Your task to perform on an android device: turn on notifications settings in the gmail app Image 0: 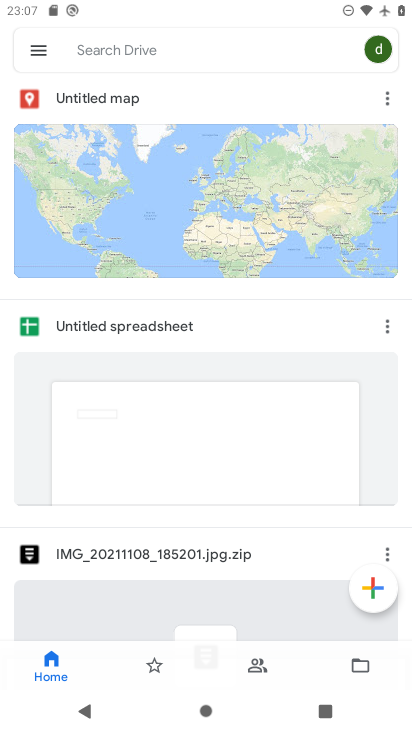
Step 0: press home button
Your task to perform on an android device: turn on notifications settings in the gmail app Image 1: 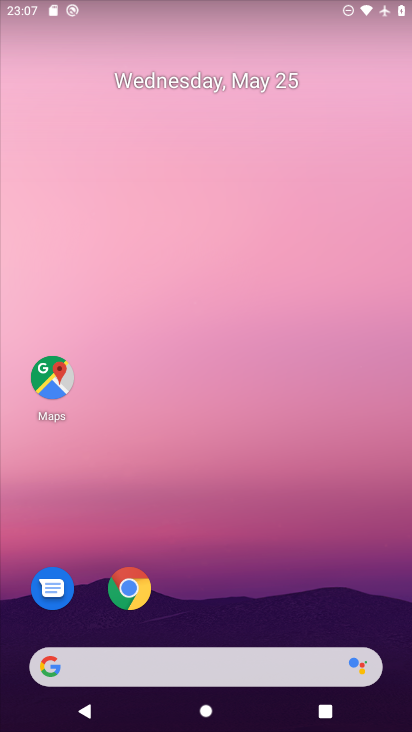
Step 1: drag from (294, 574) to (224, 173)
Your task to perform on an android device: turn on notifications settings in the gmail app Image 2: 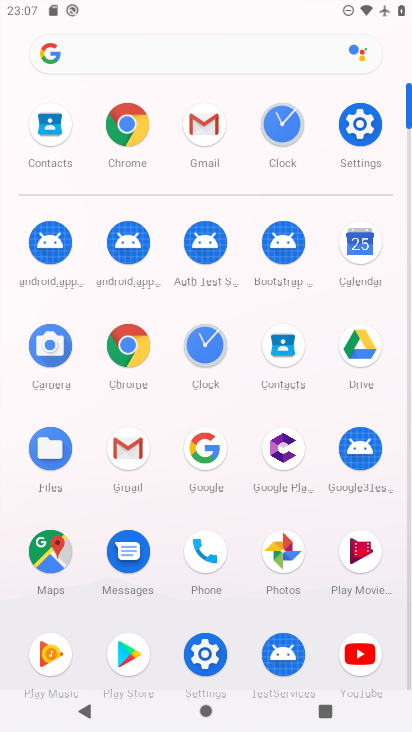
Step 2: click (124, 445)
Your task to perform on an android device: turn on notifications settings in the gmail app Image 3: 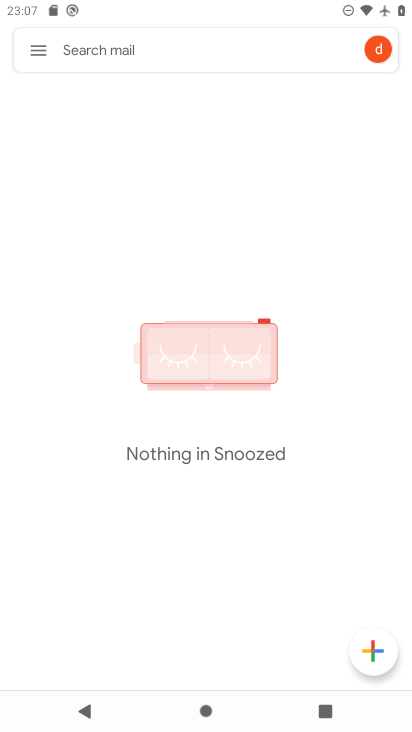
Step 3: click (33, 52)
Your task to perform on an android device: turn on notifications settings in the gmail app Image 4: 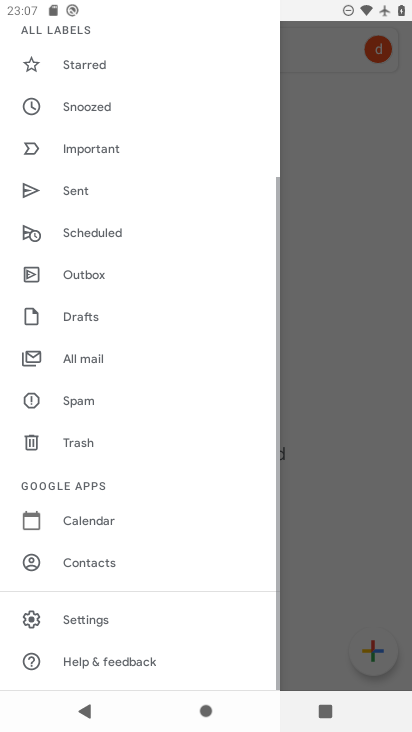
Step 4: click (121, 604)
Your task to perform on an android device: turn on notifications settings in the gmail app Image 5: 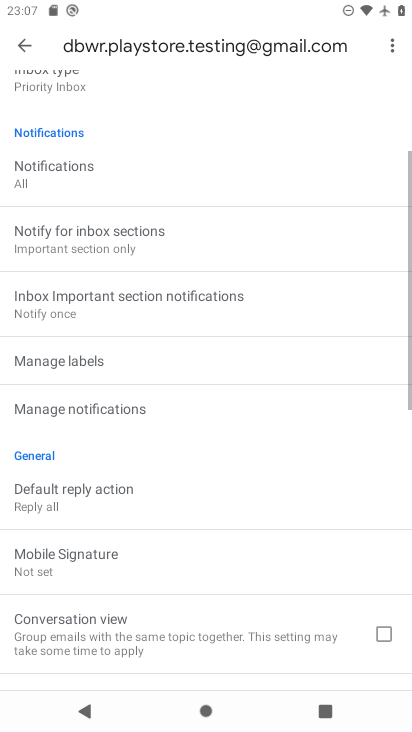
Step 5: drag from (138, 212) to (56, 608)
Your task to perform on an android device: turn on notifications settings in the gmail app Image 6: 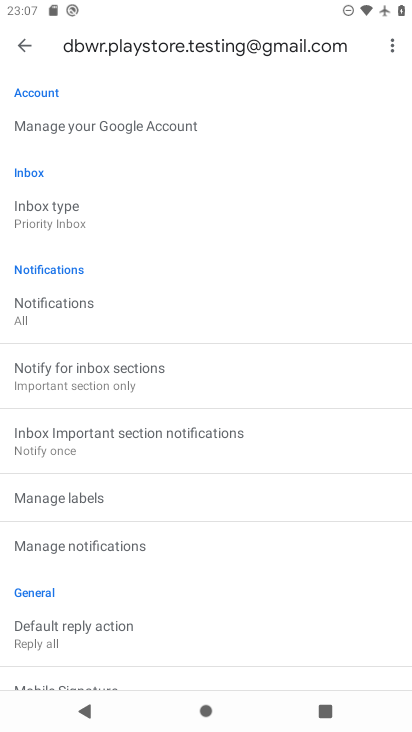
Step 6: drag from (98, 251) to (109, 627)
Your task to perform on an android device: turn on notifications settings in the gmail app Image 7: 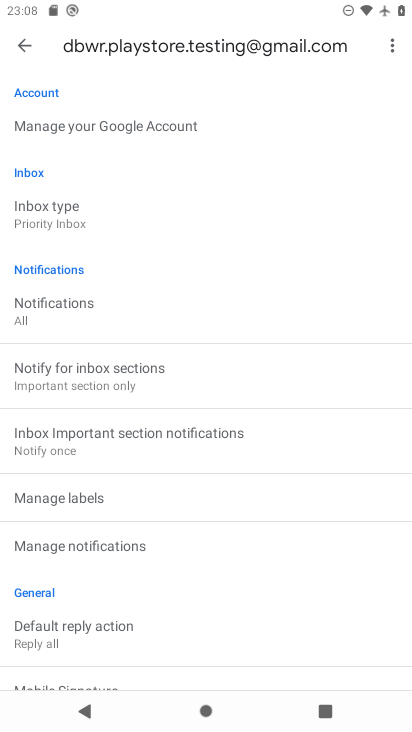
Step 7: click (106, 547)
Your task to perform on an android device: turn on notifications settings in the gmail app Image 8: 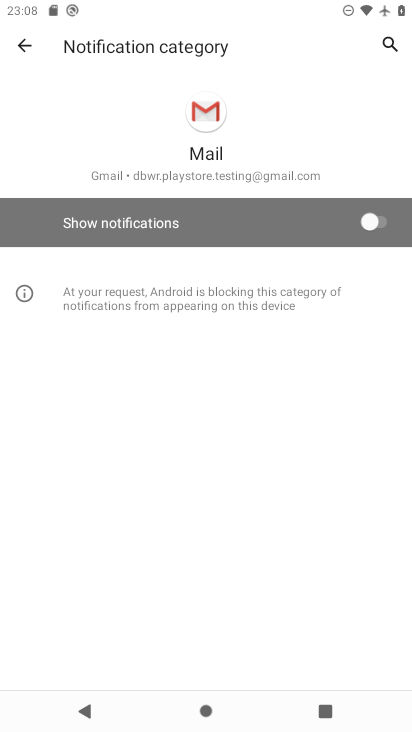
Step 8: click (373, 222)
Your task to perform on an android device: turn on notifications settings in the gmail app Image 9: 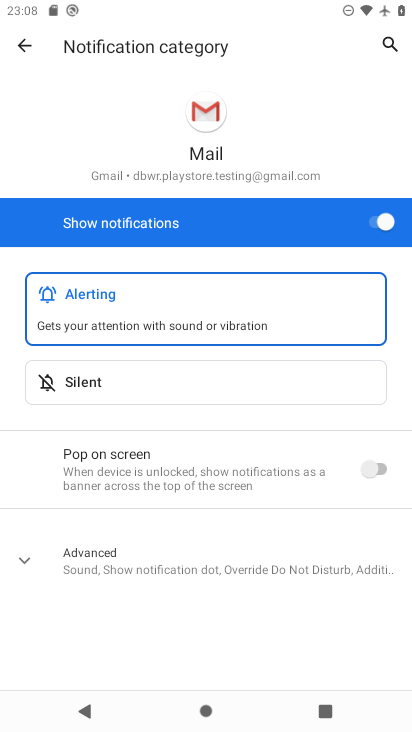
Step 9: task complete